Your task to perform on an android device: turn off notifications in google photos Image 0: 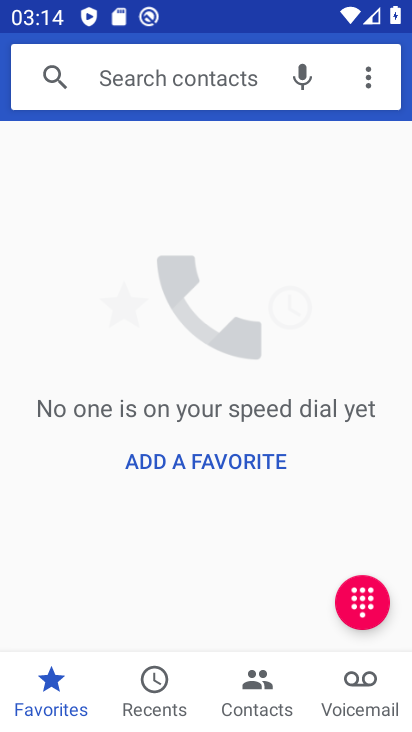
Step 0: press back button
Your task to perform on an android device: turn off notifications in google photos Image 1: 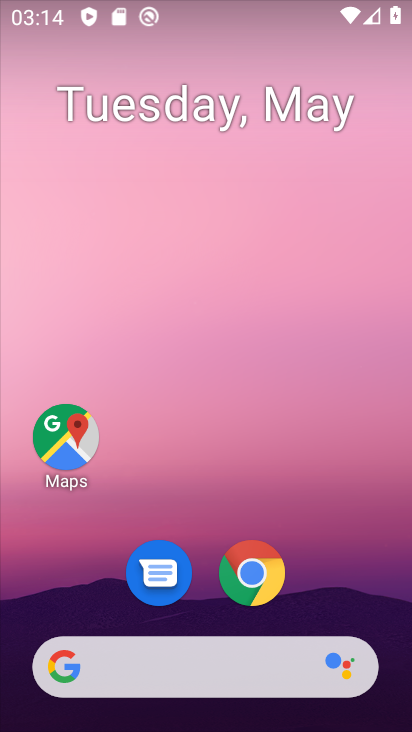
Step 1: drag from (137, 602) to (220, 123)
Your task to perform on an android device: turn off notifications in google photos Image 2: 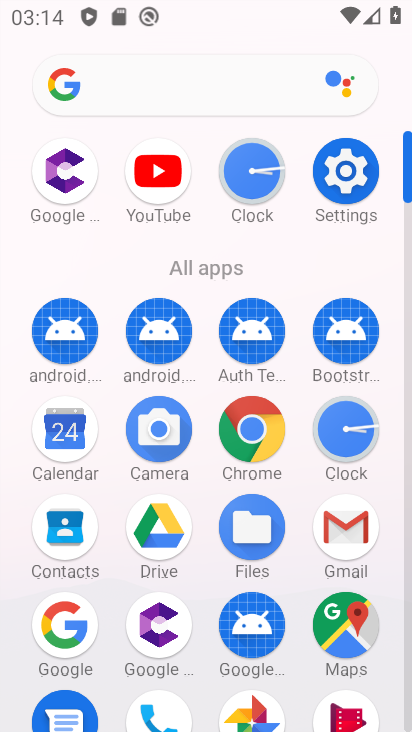
Step 2: click (261, 721)
Your task to perform on an android device: turn off notifications in google photos Image 3: 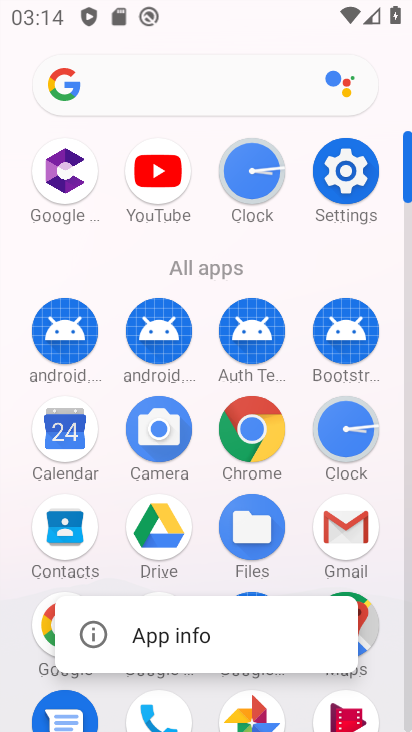
Step 3: click (155, 621)
Your task to perform on an android device: turn off notifications in google photos Image 4: 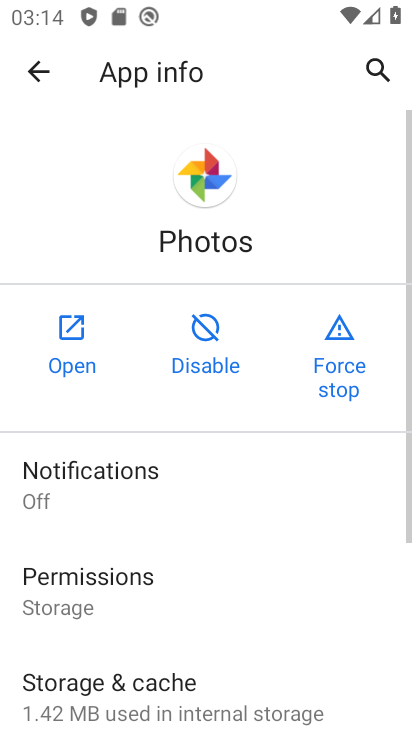
Step 4: click (122, 473)
Your task to perform on an android device: turn off notifications in google photos Image 5: 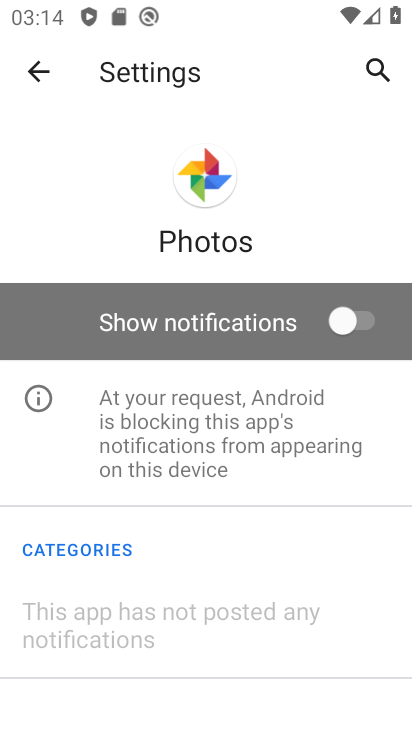
Step 5: task complete